Your task to perform on an android device: choose inbox layout in the gmail app Image 0: 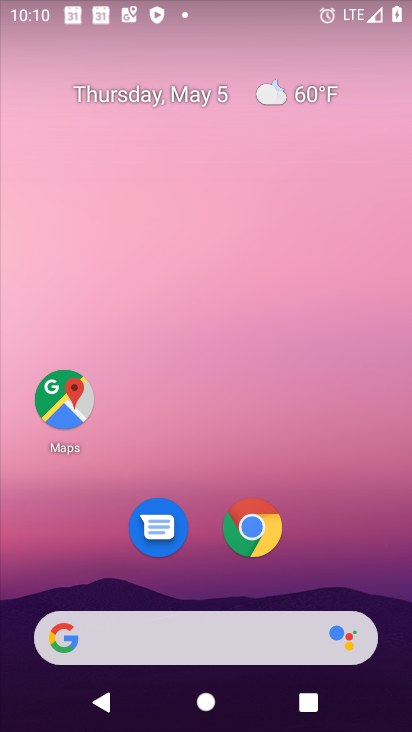
Step 0: drag from (254, 704) to (262, 200)
Your task to perform on an android device: choose inbox layout in the gmail app Image 1: 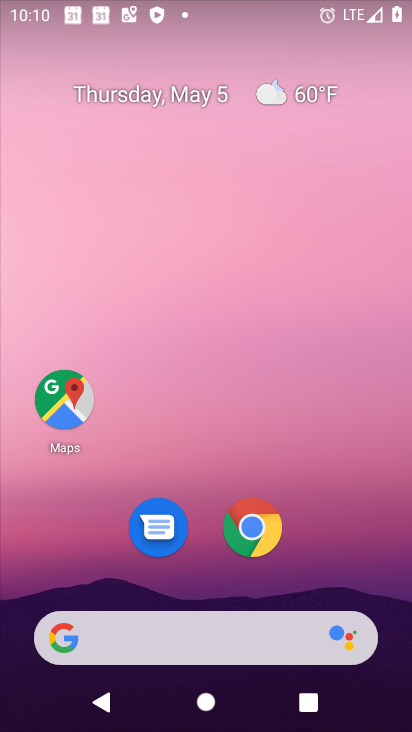
Step 1: drag from (245, 705) to (262, 187)
Your task to perform on an android device: choose inbox layout in the gmail app Image 2: 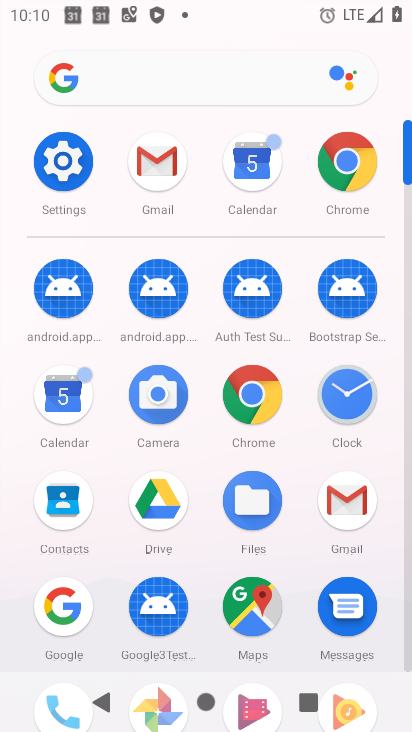
Step 2: click (357, 505)
Your task to perform on an android device: choose inbox layout in the gmail app Image 3: 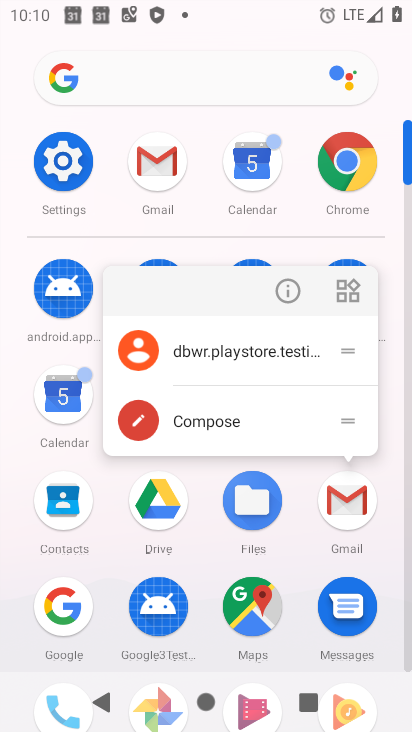
Step 3: click (357, 505)
Your task to perform on an android device: choose inbox layout in the gmail app Image 4: 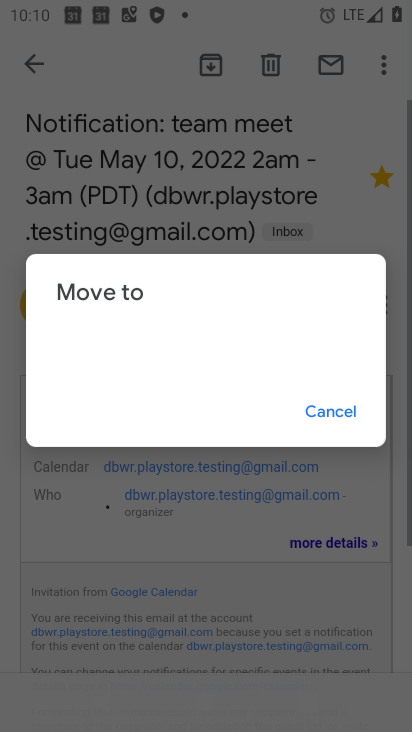
Step 4: click (338, 494)
Your task to perform on an android device: choose inbox layout in the gmail app Image 5: 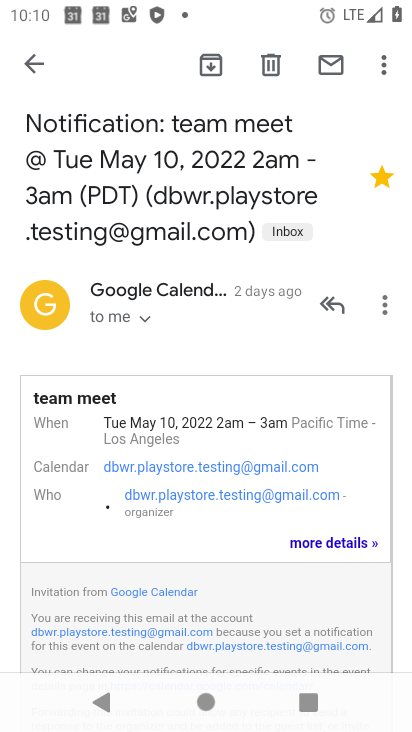
Step 5: click (32, 63)
Your task to perform on an android device: choose inbox layout in the gmail app Image 6: 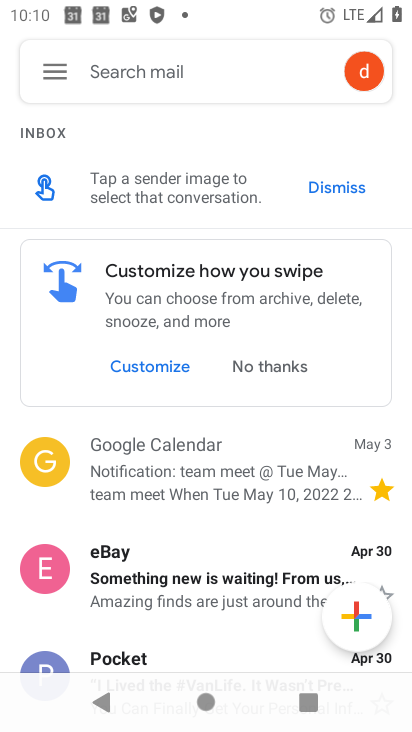
Step 6: click (48, 62)
Your task to perform on an android device: choose inbox layout in the gmail app Image 7: 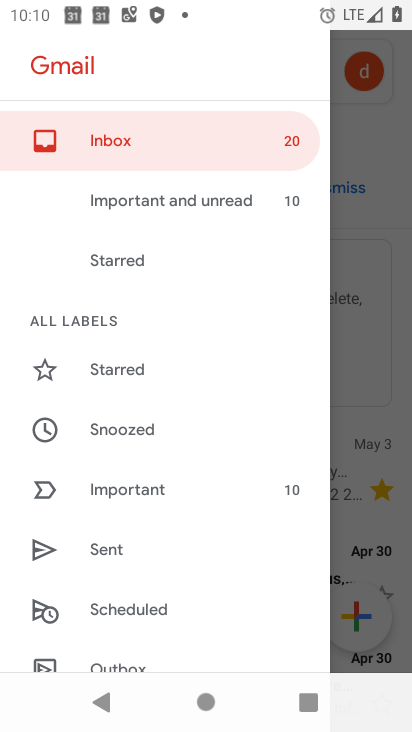
Step 7: drag from (199, 631) to (222, 58)
Your task to perform on an android device: choose inbox layout in the gmail app Image 8: 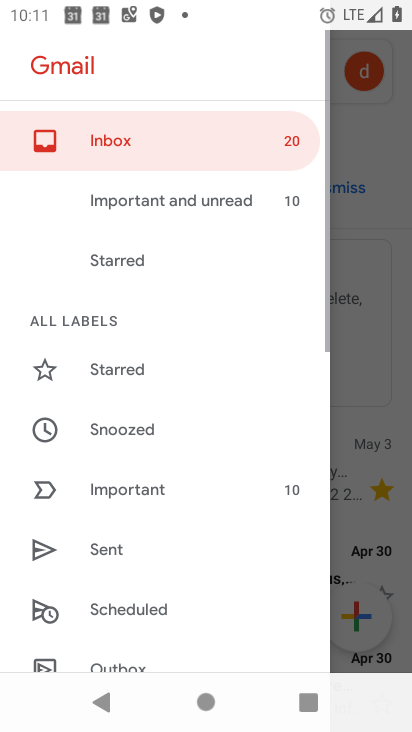
Step 8: drag from (180, 631) to (82, 74)
Your task to perform on an android device: choose inbox layout in the gmail app Image 9: 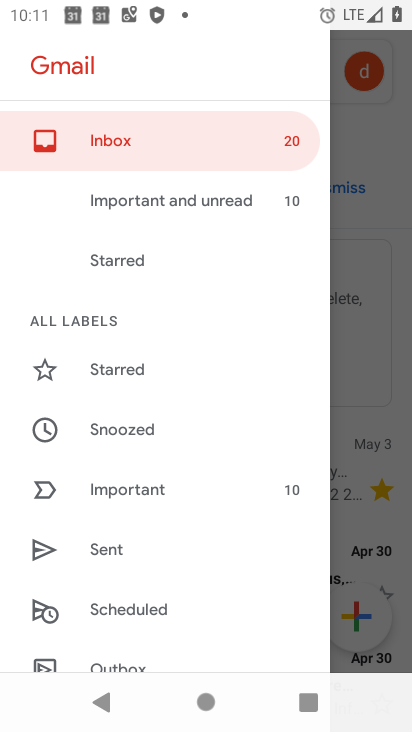
Step 9: drag from (193, 630) to (164, 6)
Your task to perform on an android device: choose inbox layout in the gmail app Image 10: 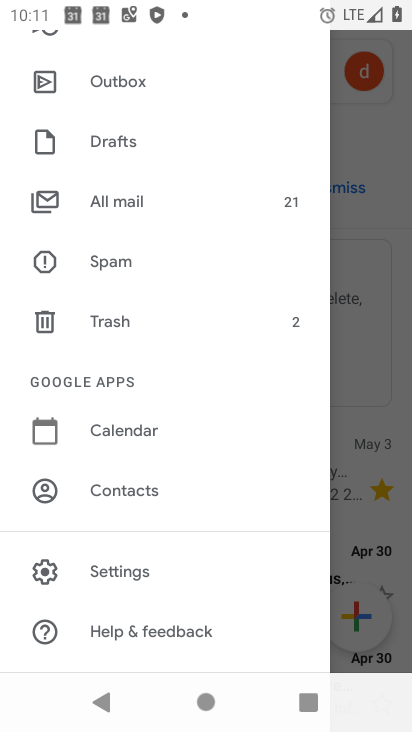
Step 10: click (123, 576)
Your task to perform on an android device: choose inbox layout in the gmail app Image 11: 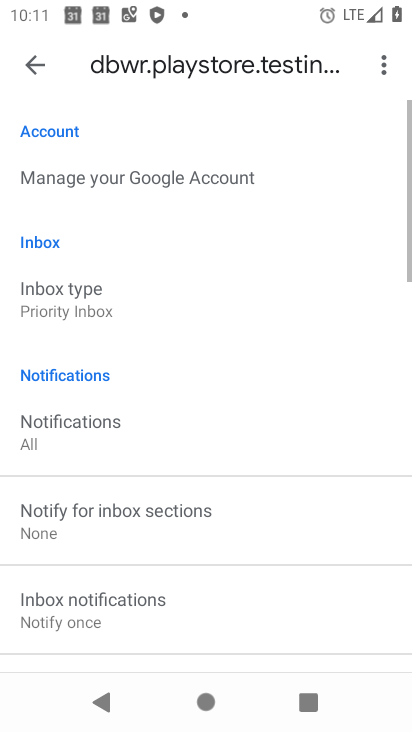
Step 11: click (54, 307)
Your task to perform on an android device: choose inbox layout in the gmail app Image 12: 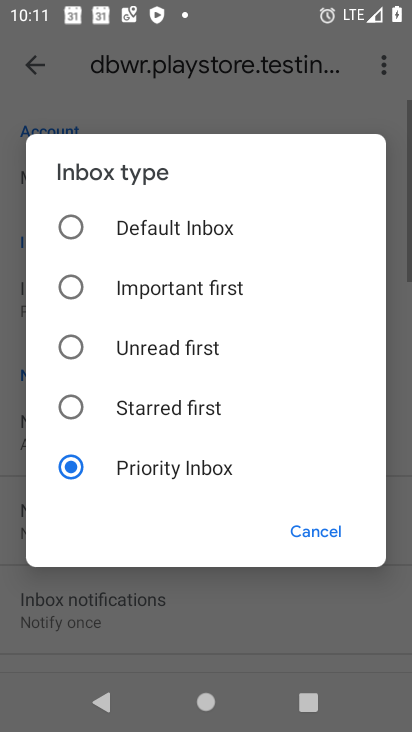
Step 12: click (149, 237)
Your task to perform on an android device: choose inbox layout in the gmail app Image 13: 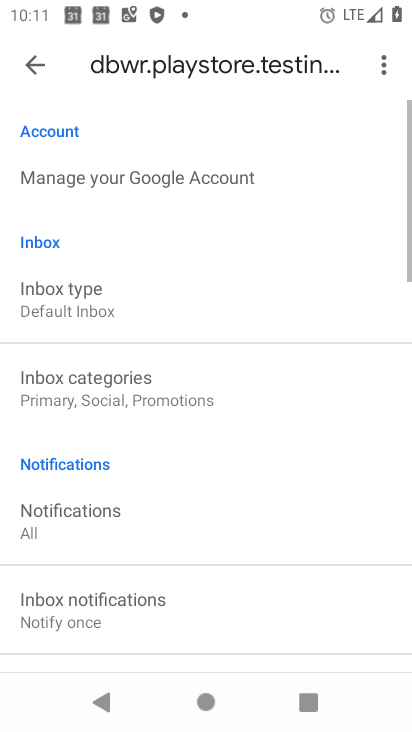
Step 13: task complete